Your task to perform on an android device: Go to Google Image 0: 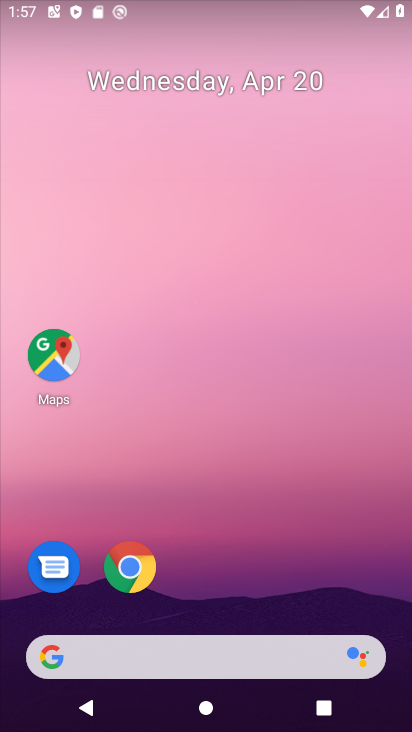
Step 0: drag from (224, 586) to (240, 129)
Your task to perform on an android device: Go to Google Image 1: 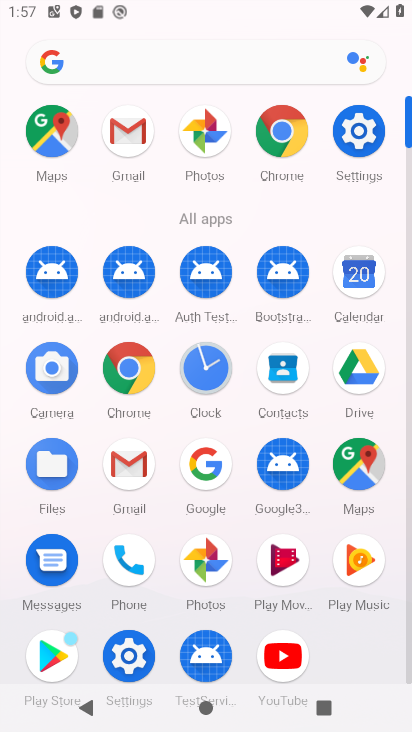
Step 1: click (219, 464)
Your task to perform on an android device: Go to Google Image 2: 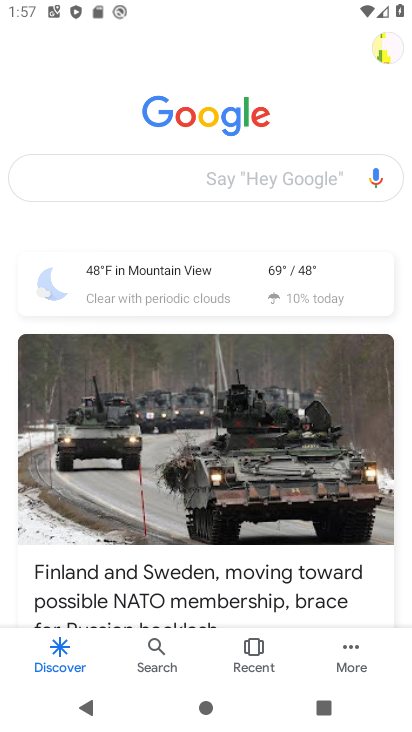
Step 2: task complete